Your task to perform on an android device: Open calendar and show me the third week of next month Image 0: 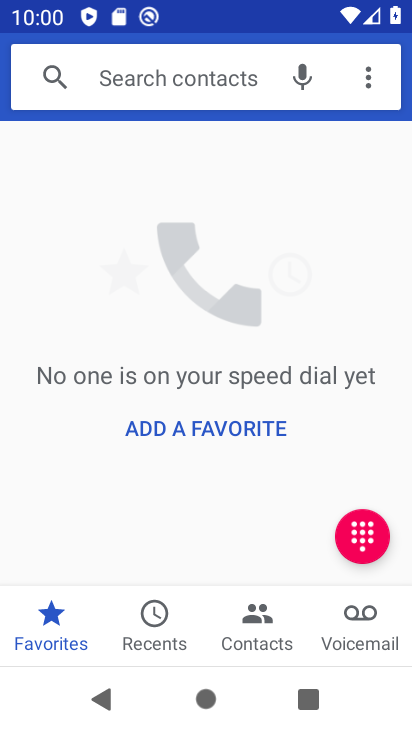
Step 0: press home button
Your task to perform on an android device: Open calendar and show me the third week of next month Image 1: 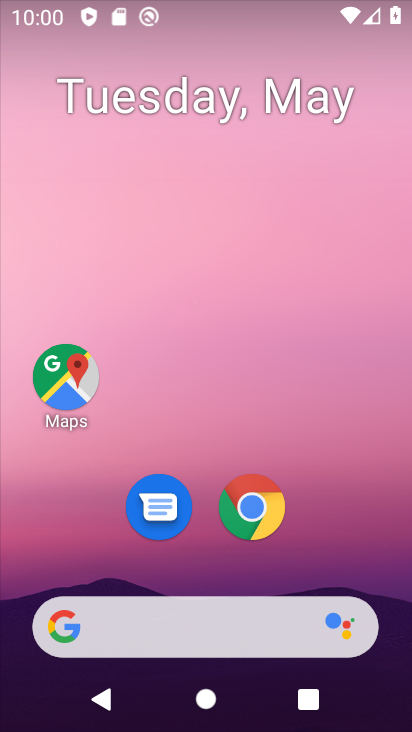
Step 1: drag from (353, 565) to (332, 82)
Your task to perform on an android device: Open calendar and show me the third week of next month Image 2: 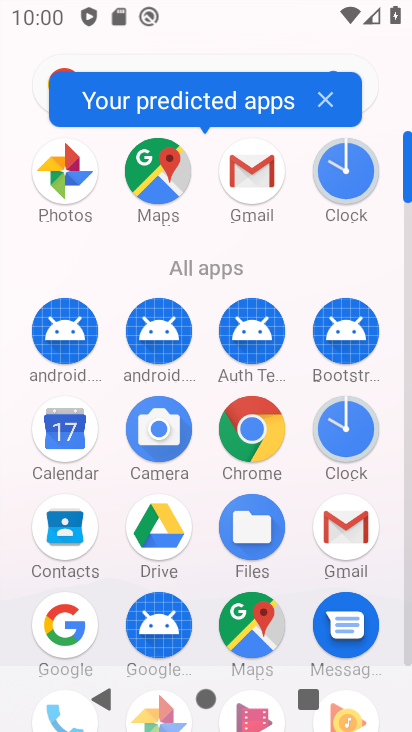
Step 2: drag from (75, 439) to (149, 194)
Your task to perform on an android device: Open calendar and show me the third week of next month Image 3: 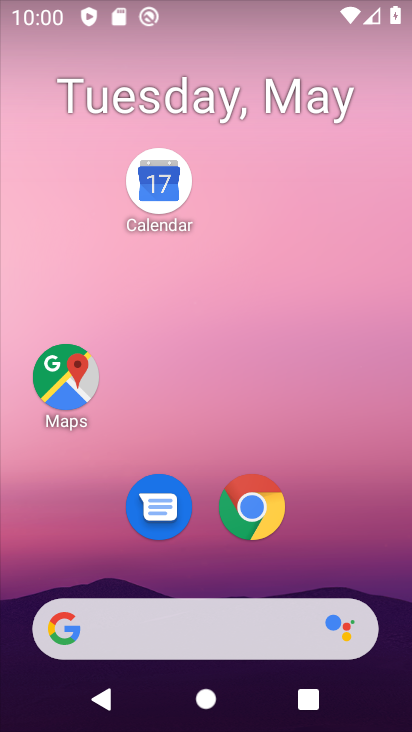
Step 3: click (152, 193)
Your task to perform on an android device: Open calendar and show me the third week of next month Image 4: 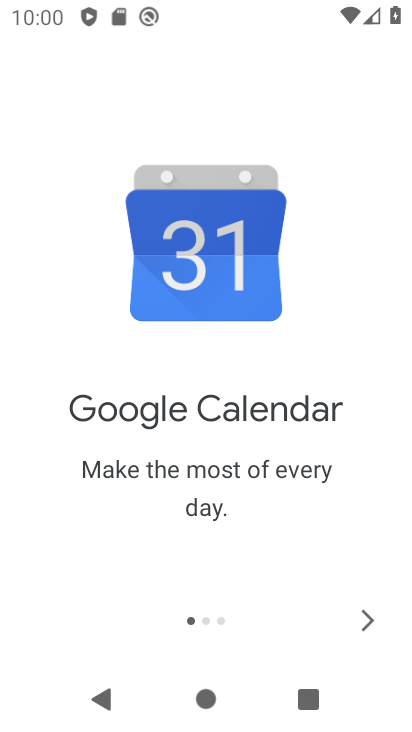
Step 4: click (384, 622)
Your task to perform on an android device: Open calendar and show me the third week of next month Image 5: 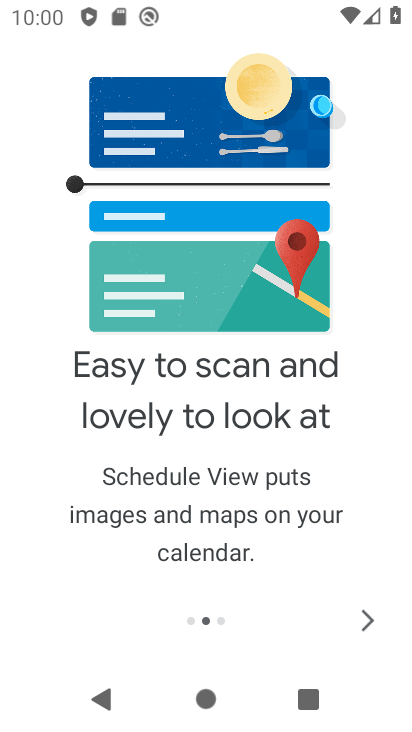
Step 5: click (384, 622)
Your task to perform on an android device: Open calendar and show me the third week of next month Image 6: 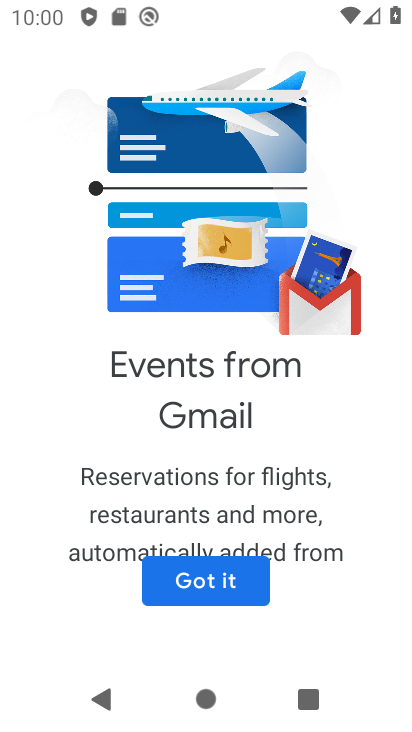
Step 6: click (252, 590)
Your task to perform on an android device: Open calendar and show me the third week of next month Image 7: 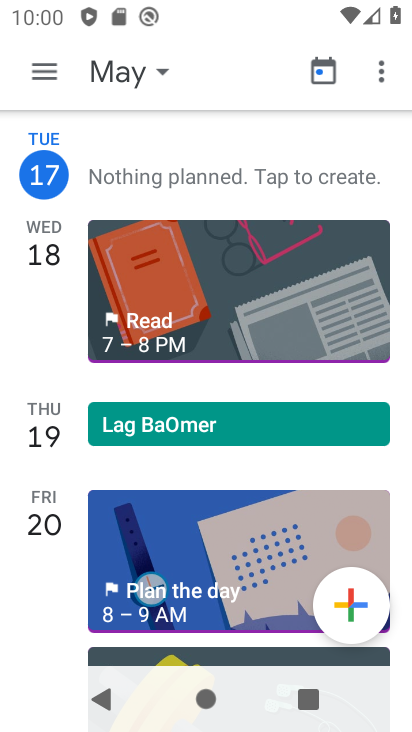
Step 7: click (151, 71)
Your task to perform on an android device: Open calendar and show me the third week of next month Image 8: 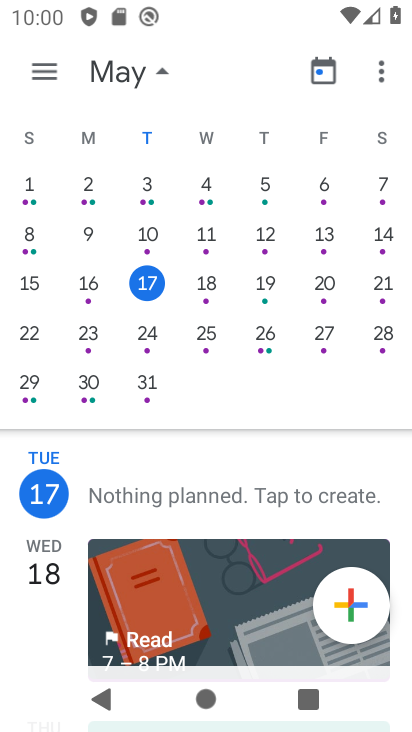
Step 8: drag from (399, 248) to (9, 169)
Your task to perform on an android device: Open calendar and show me the third week of next month Image 9: 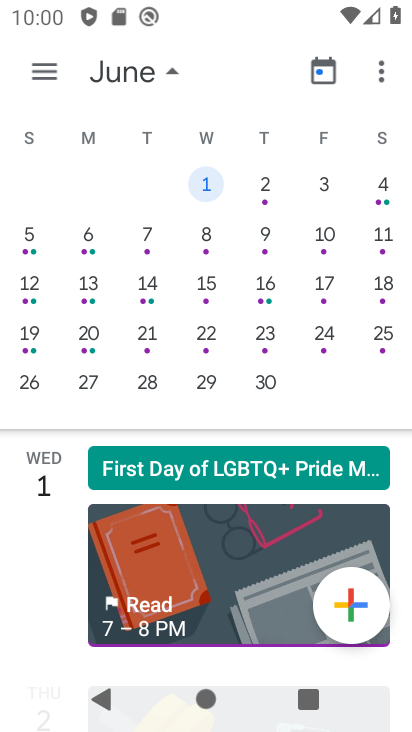
Step 9: click (45, 68)
Your task to perform on an android device: Open calendar and show me the third week of next month Image 10: 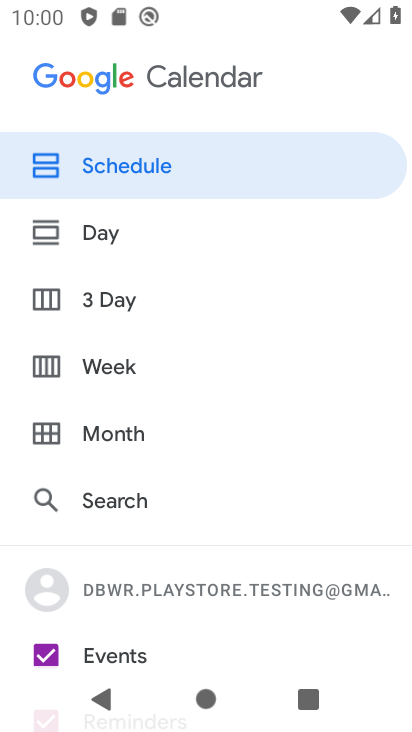
Step 10: click (132, 364)
Your task to perform on an android device: Open calendar and show me the third week of next month Image 11: 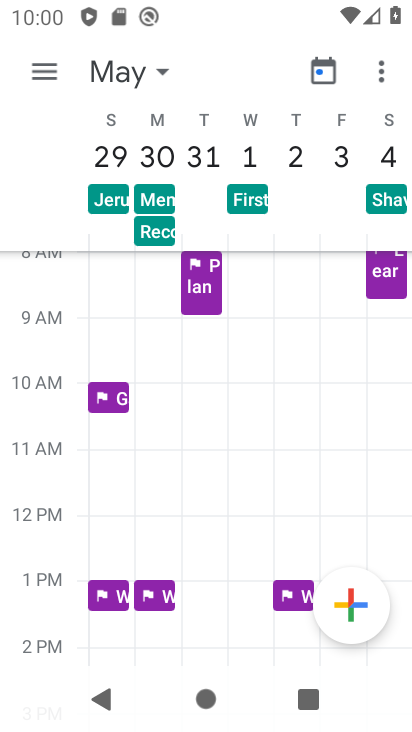
Step 11: task complete